Your task to perform on an android device: Go to Yahoo.com Image 0: 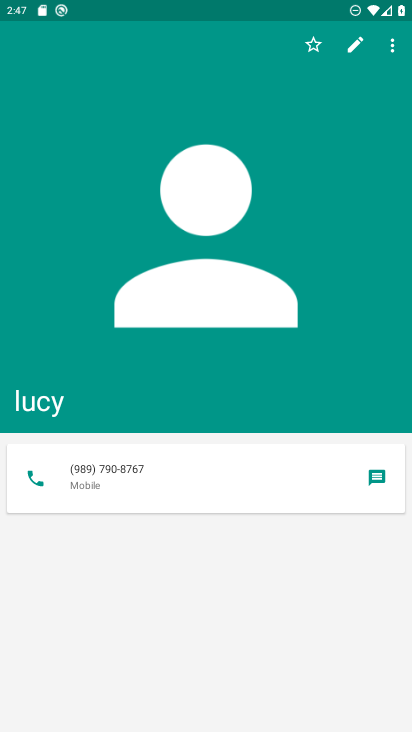
Step 0: press home button
Your task to perform on an android device: Go to Yahoo.com Image 1: 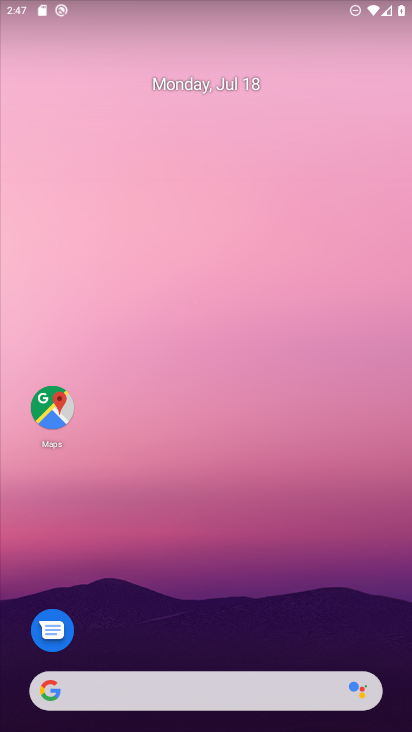
Step 1: drag from (303, 671) to (284, 22)
Your task to perform on an android device: Go to Yahoo.com Image 2: 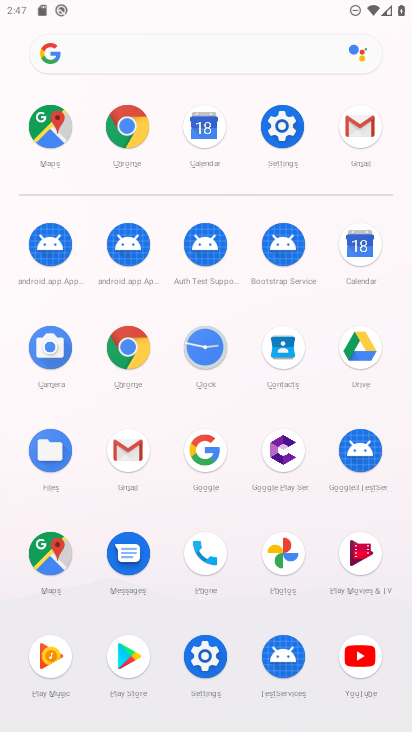
Step 2: click (121, 342)
Your task to perform on an android device: Go to Yahoo.com Image 3: 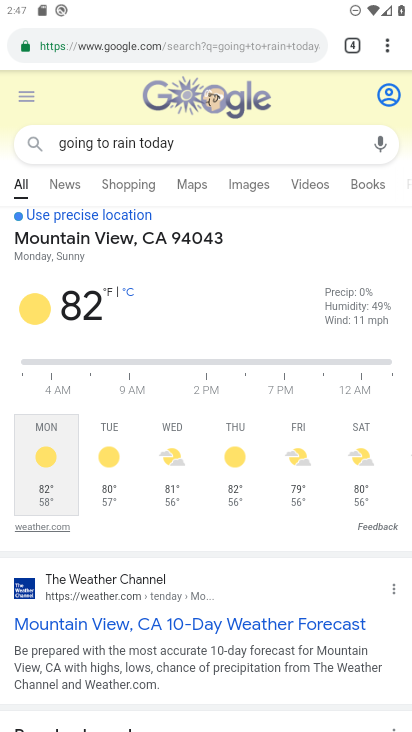
Step 3: click (166, 43)
Your task to perform on an android device: Go to Yahoo.com Image 4: 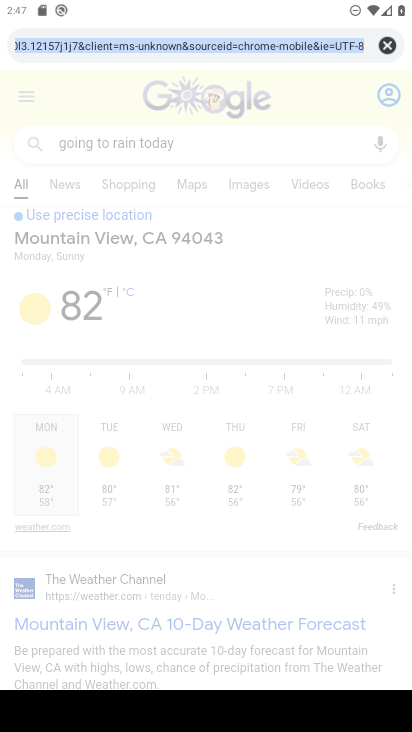
Step 4: type "yahoo.com"
Your task to perform on an android device: Go to Yahoo.com Image 5: 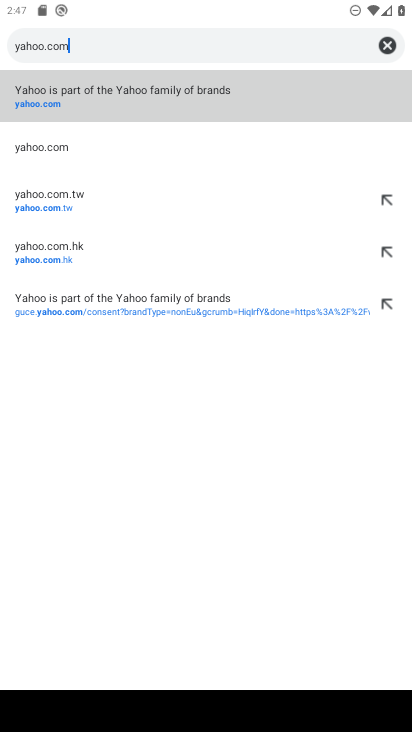
Step 5: click (199, 101)
Your task to perform on an android device: Go to Yahoo.com Image 6: 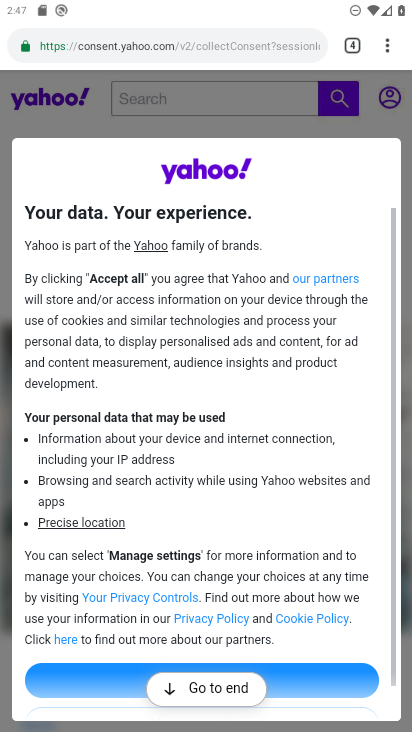
Step 6: task complete